Your task to perform on an android device: delete location history Image 0: 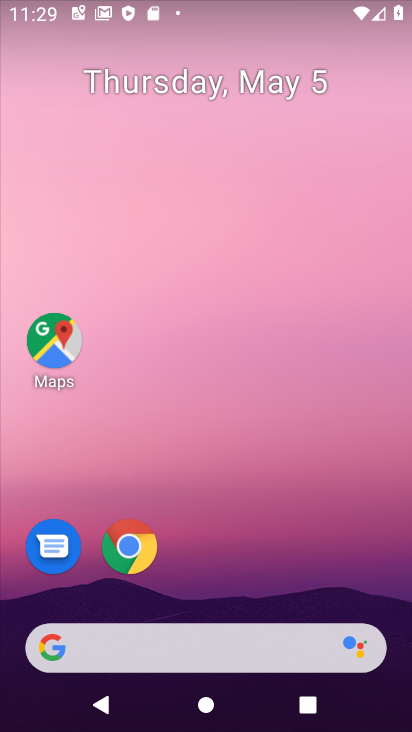
Step 0: drag from (248, 604) to (246, 118)
Your task to perform on an android device: delete location history Image 1: 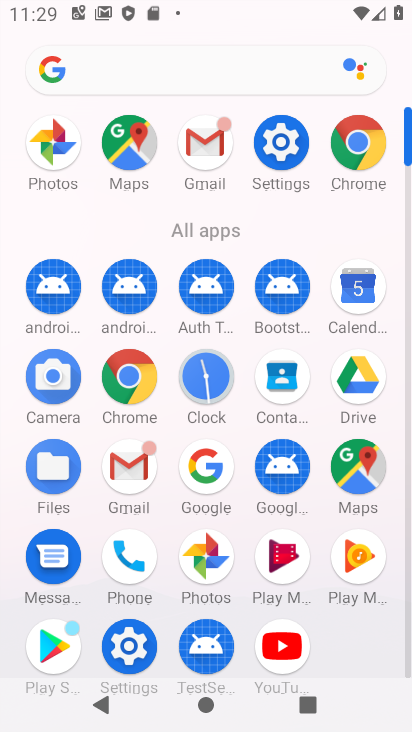
Step 1: click (275, 144)
Your task to perform on an android device: delete location history Image 2: 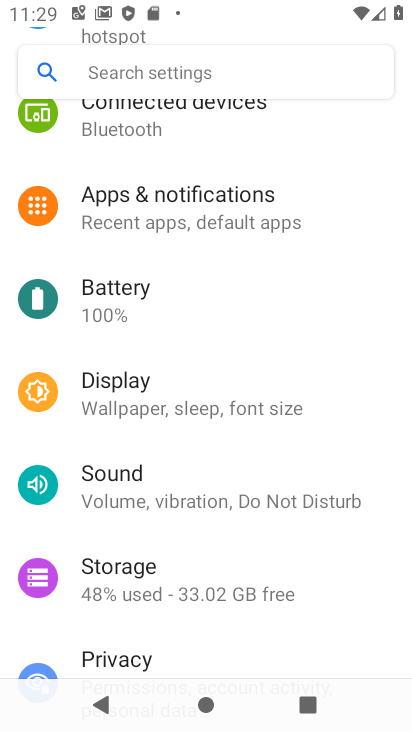
Step 2: drag from (218, 497) to (217, 184)
Your task to perform on an android device: delete location history Image 3: 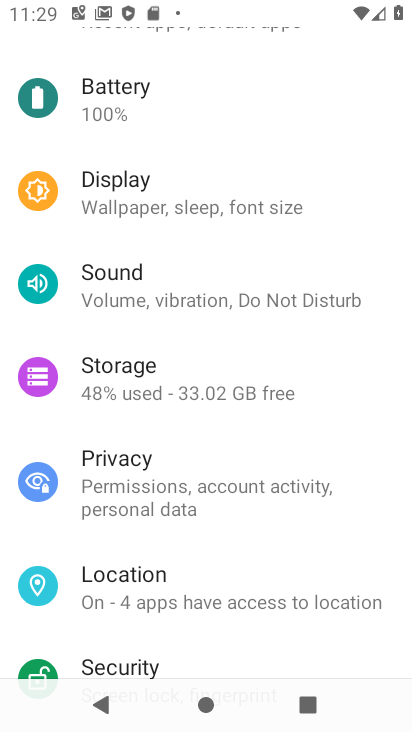
Step 3: click (206, 592)
Your task to perform on an android device: delete location history Image 4: 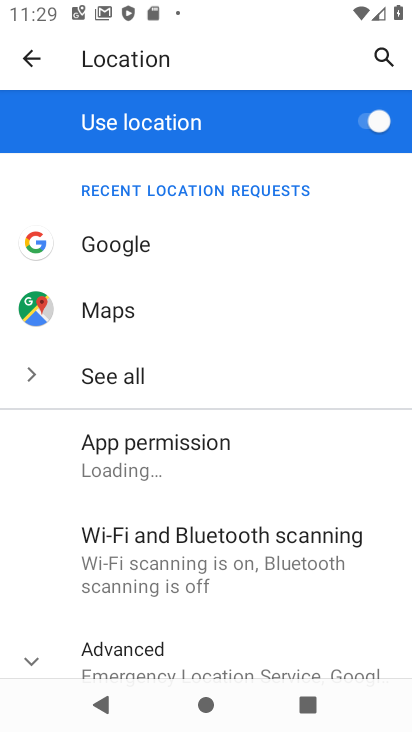
Step 4: drag from (232, 612) to (226, 282)
Your task to perform on an android device: delete location history Image 5: 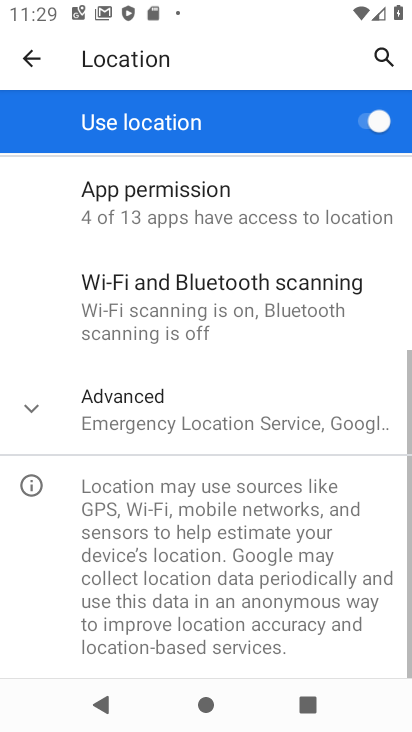
Step 5: click (226, 427)
Your task to perform on an android device: delete location history Image 6: 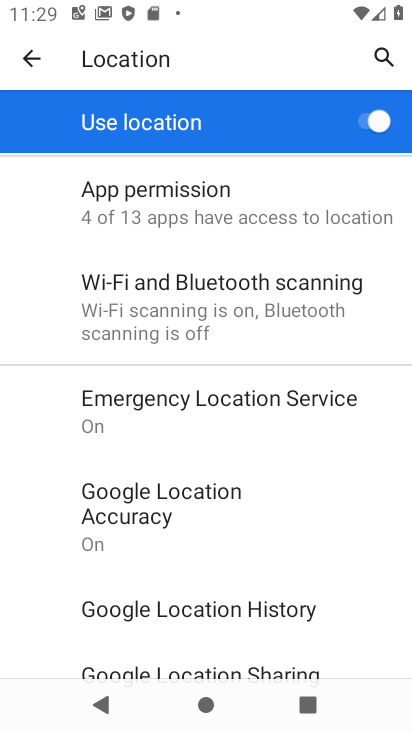
Step 6: click (227, 609)
Your task to perform on an android device: delete location history Image 7: 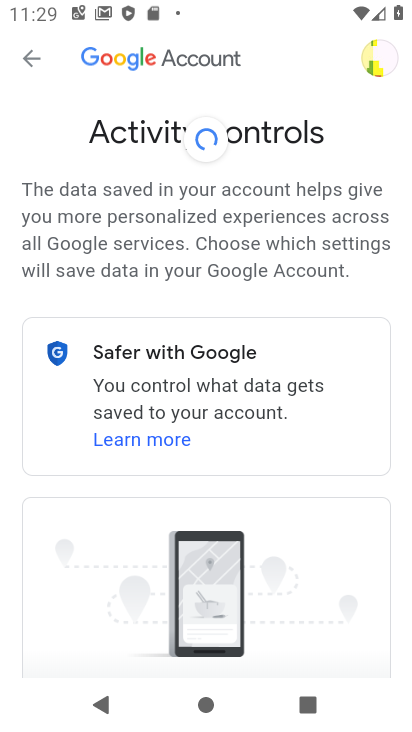
Step 7: drag from (309, 548) to (305, 223)
Your task to perform on an android device: delete location history Image 8: 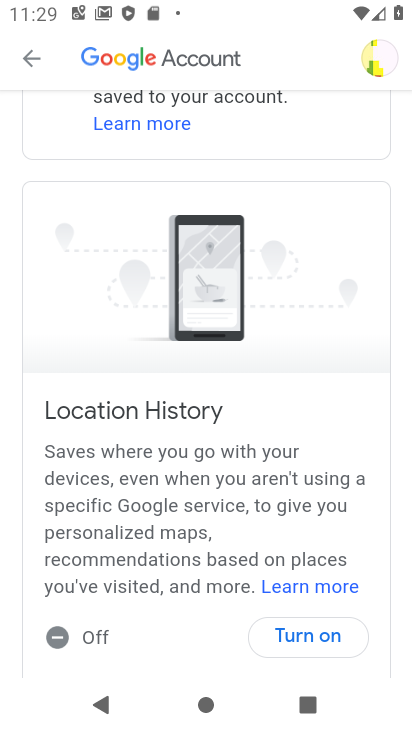
Step 8: drag from (292, 533) to (280, 148)
Your task to perform on an android device: delete location history Image 9: 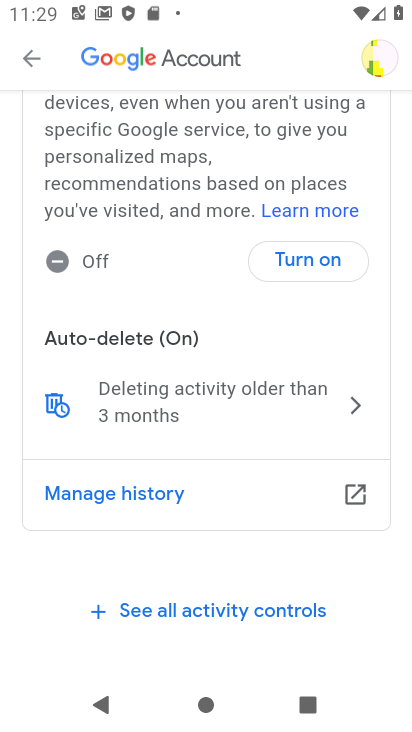
Step 9: click (351, 493)
Your task to perform on an android device: delete location history Image 10: 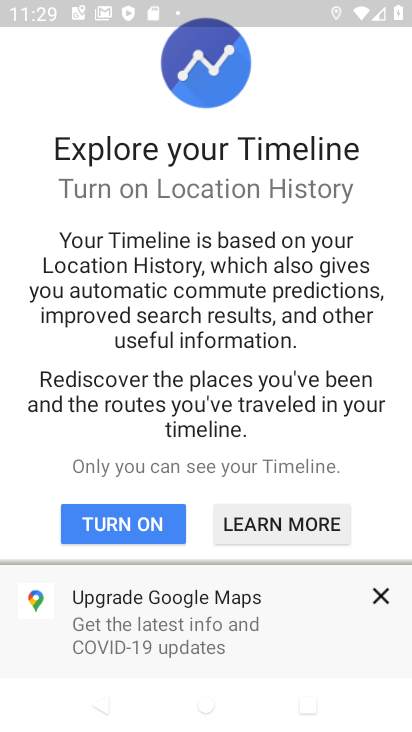
Step 10: click (152, 525)
Your task to perform on an android device: delete location history Image 11: 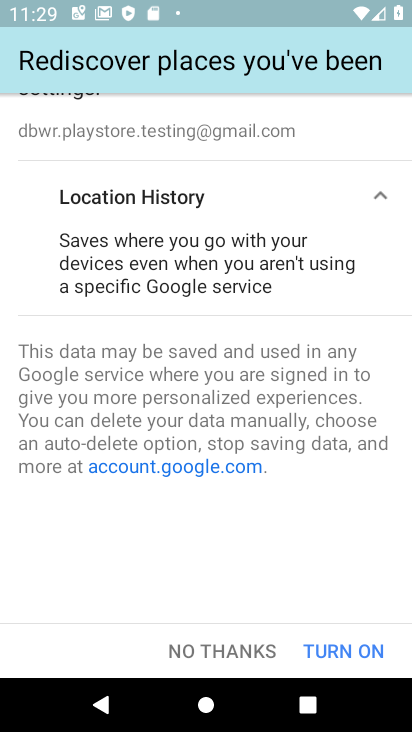
Step 11: click (385, 50)
Your task to perform on an android device: delete location history Image 12: 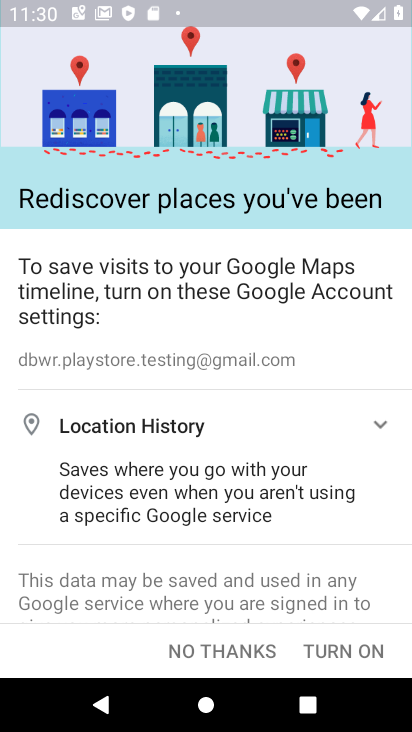
Step 12: click (335, 642)
Your task to perform on an android device: delete location history Image 13: 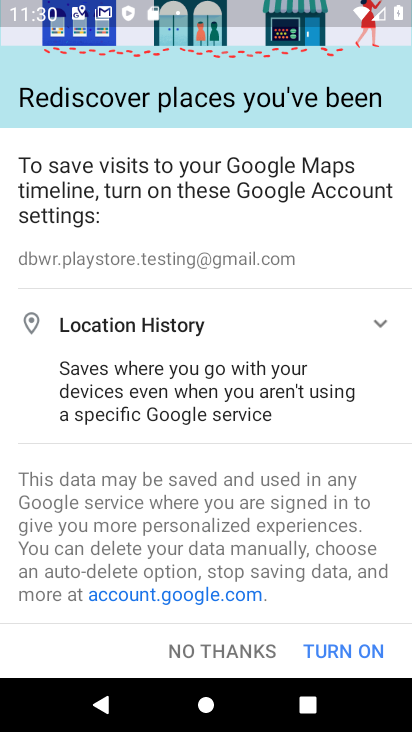
Step 13: click (349, 636)
Your task to perform on an android device: delete location history Image 14: 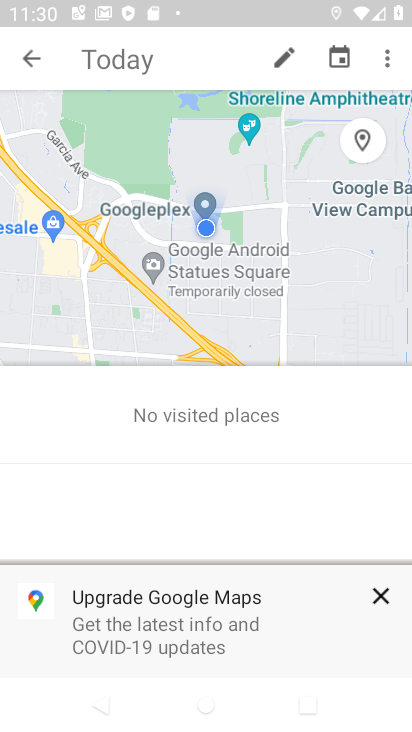
Step 14: click (389, 60)
Your task to perform on an android device: delete location history Image 15: 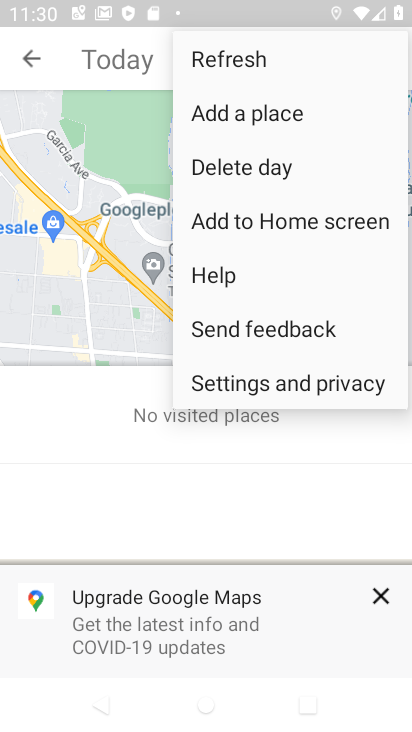
Step 15: click (272, 384)
Your task to perform on an android device: delete location history Image 16: 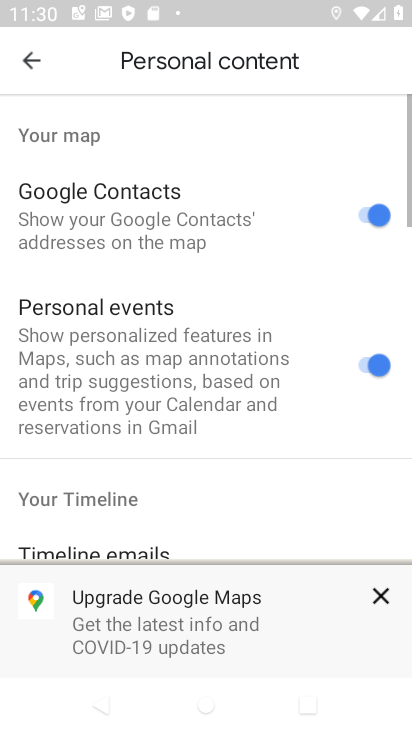
Step 16: drag from (226, 453) to (235, 156)
Your task to perform on an android device: delete location history Image 17: 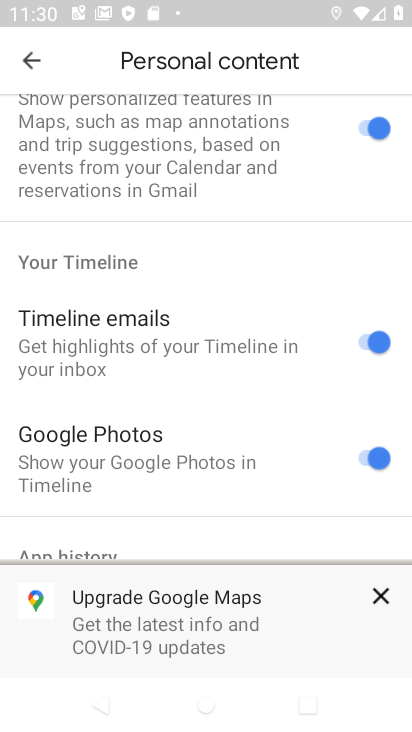
Step 17: drag from (227, 457) to (226, 135)
Your task to perform on an android device: delete location history Image 18: 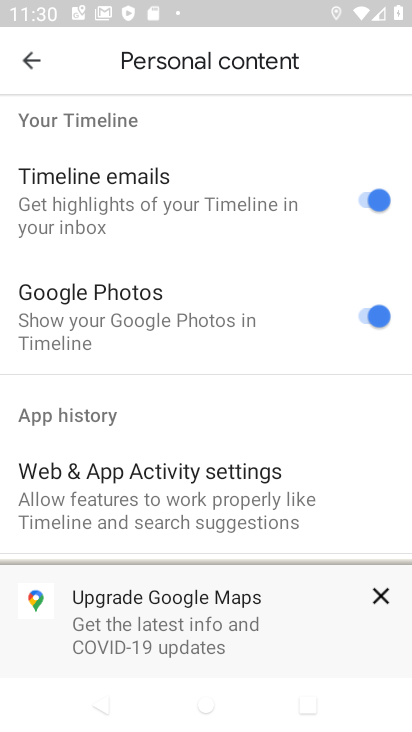
Step 18: drag from (230, 488) to (231, 249)
Your task to perform on an android device: delete location history Image 19: 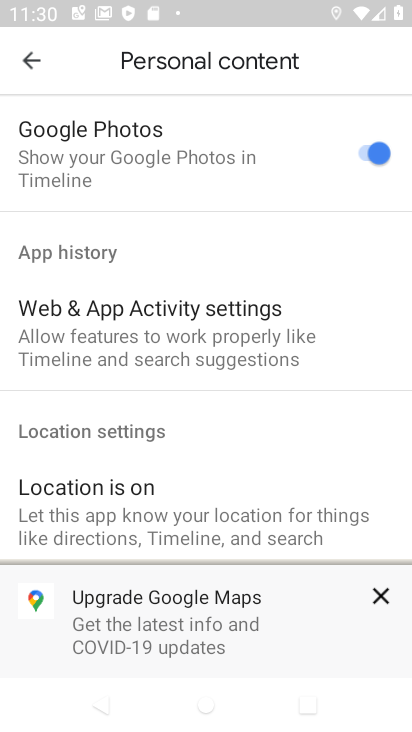
Step 19: drag from (222, 484) to (224, 255)
Your task to perform on an android device: delete location history Image 20: 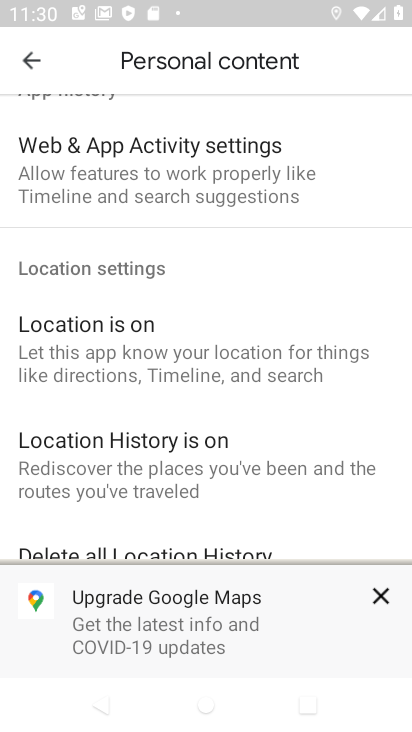
Step 20: drag from (222, 507) to (221, 299)
Your task to perform on an android device: delete location history Image 21: 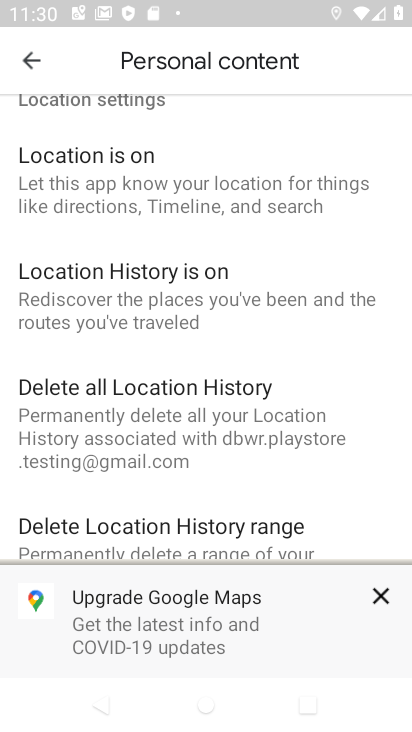
Step 21: click (169, 424)
Your task to perform on an android device: delete location history Image 22: 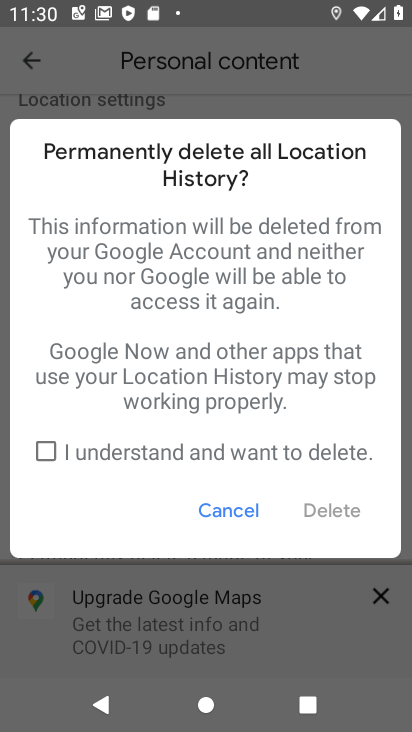
Step 22: click (47, 445)
Your task to perform on an android device: delete location history Image 23: 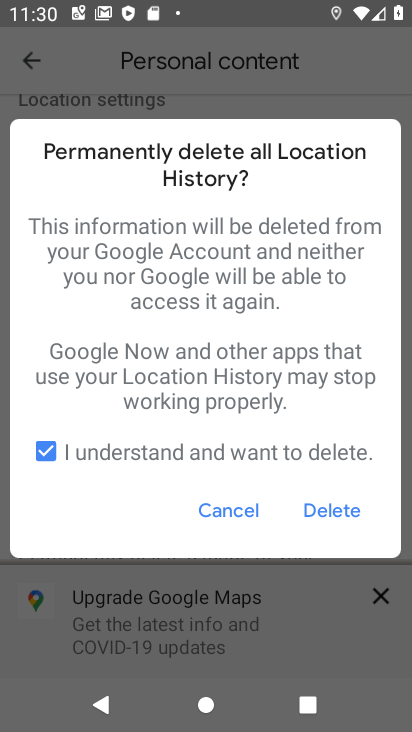
Step 23: click (318, 513)
Your task to perform on an android device: delete location history Image 24: 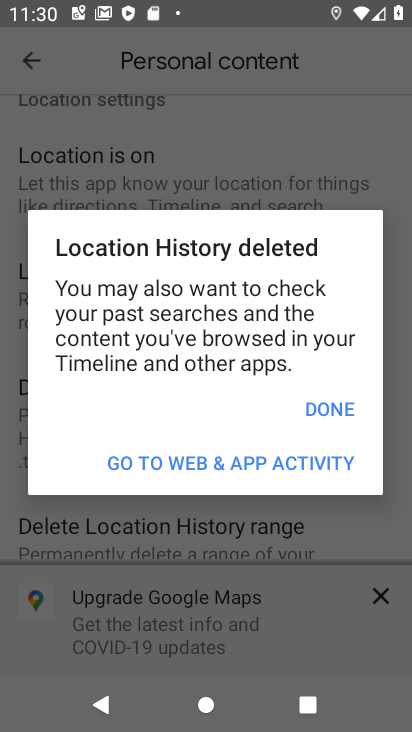
Step 24: click (333, 403)
Your task to perform on an android device: delete location history Image 25: 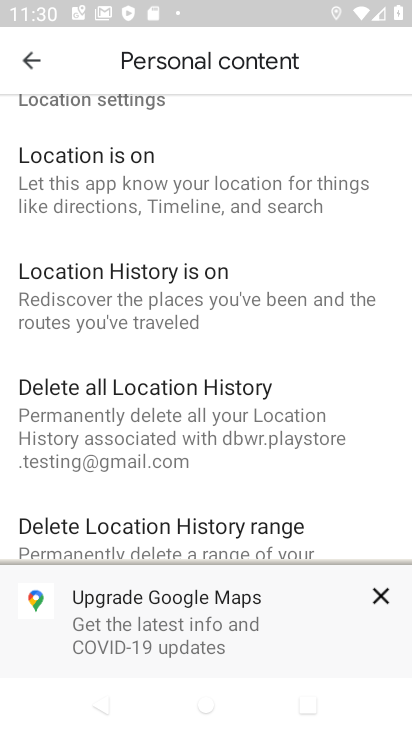
Step 25: task complete